Your task to perform on an android device: Open accessibility settings Image 0: 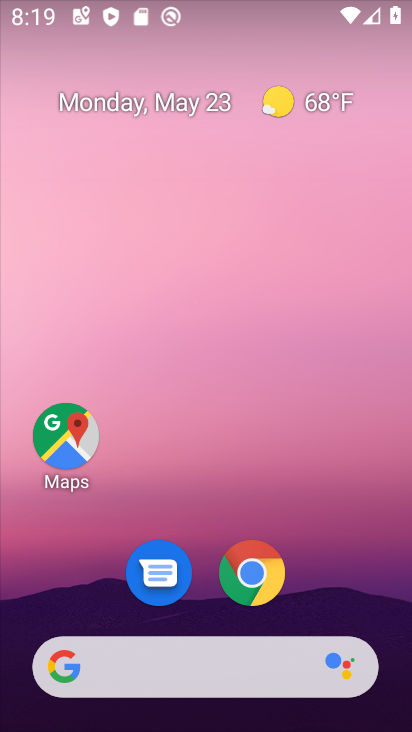
Step 0: drag from (279, 658) to (322, 0)
Your task to perform on an android device: Open accessibility settings Image 1: 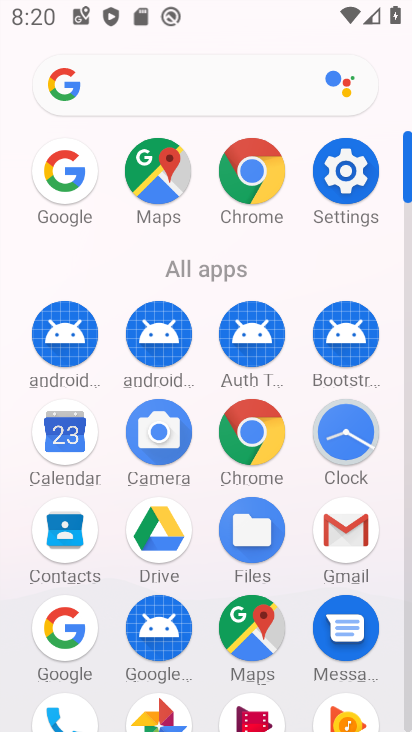
Step 1: click (319, 189)
Your task to perform on an android device: Open accessibility settings Image 2: 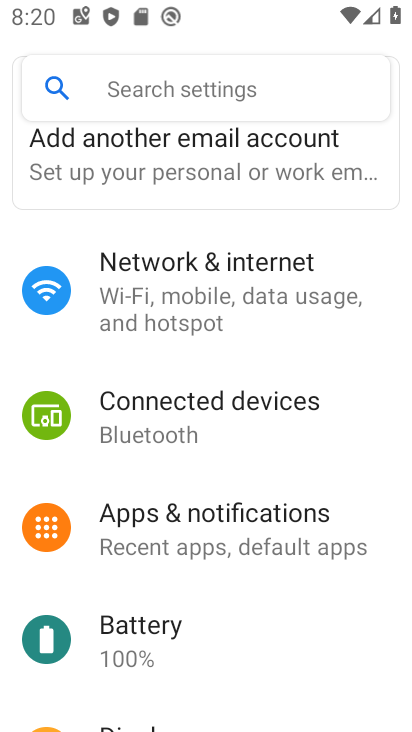
Step 2: drag from (239, 528) to (236, 189)
Your task to perform on an android device: Open accessibility settings Image 3: 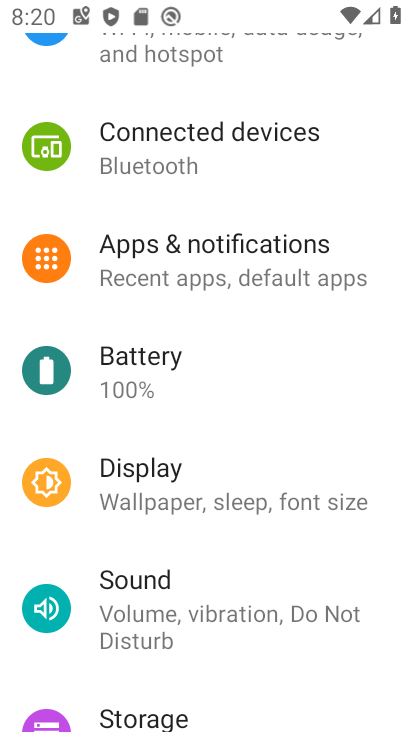
Step 3: drag from (200, 534) to (204, 201)
Your task to perform on an android device: Open accessibility settings Image 4: 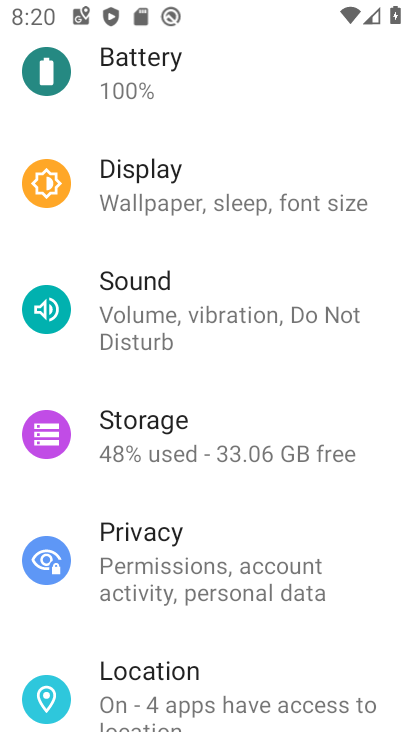
Step 4: drag from (196, 554) to (206, 174)
Your task to perform on an android device: Open accessibility settings Image 5: 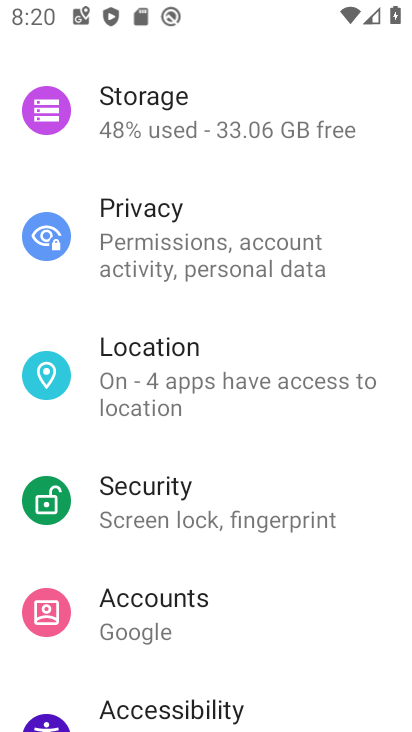
Step 5: drag from (200, 532) to (244, 57)
Your task to perform on an android device: Open accessibility settings Image 6: 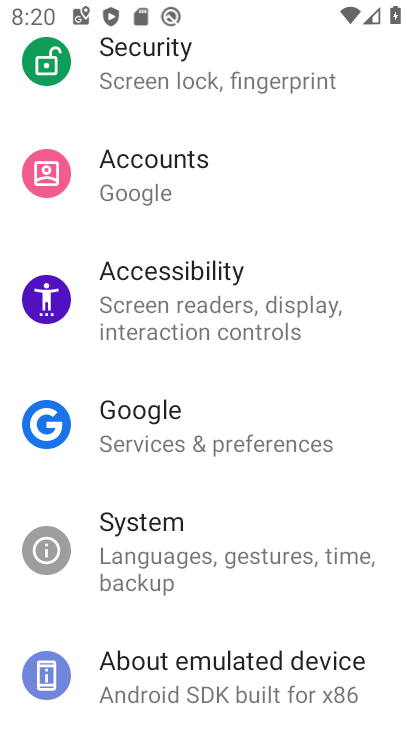
Step 6: click (276, 294)
Your task to perform on an android device: Open accessibility settings Image 7: 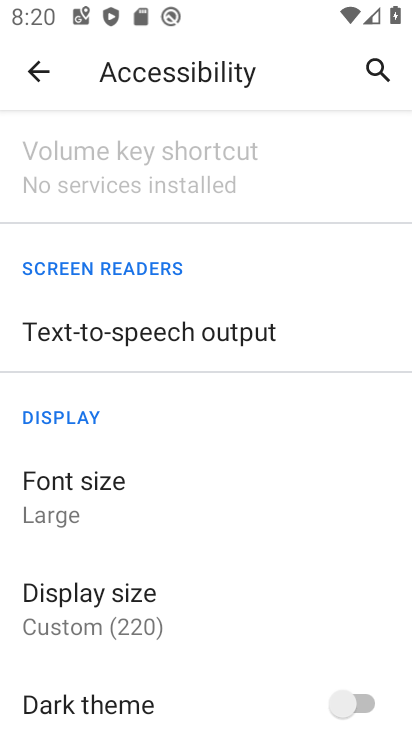
Step 7: task complete